Your task to perform on an android device: turn off location Image 0: 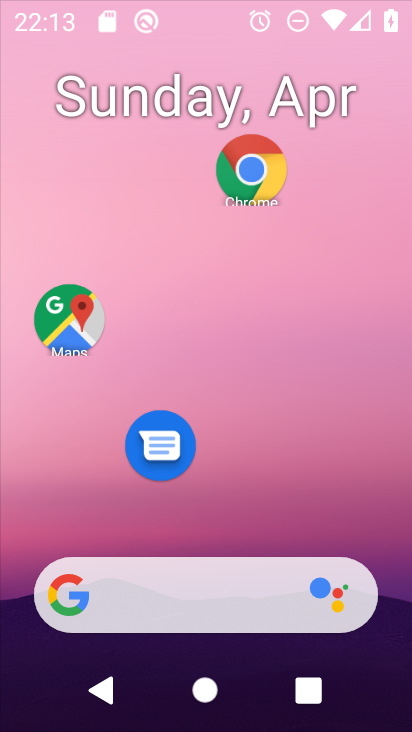
Step 0: drag from (242, 460) to (242, 120)
Your task to perform on an android device: turn off location Image 1: 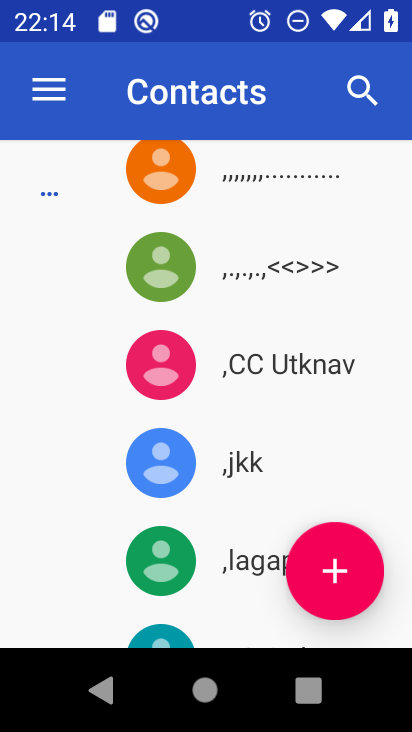
Step 1: press home button
Your task to perform on an android device: turn off location Image 2: 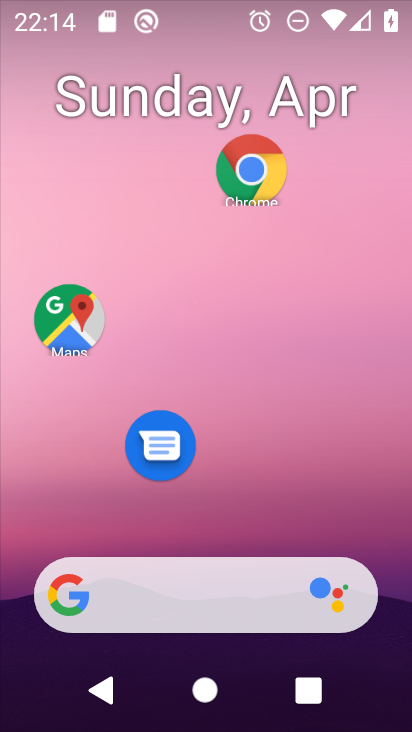
Step 2: drag from (256, 475) to (286, 79)
Your task to perform on an android device: turn off location Image 3: 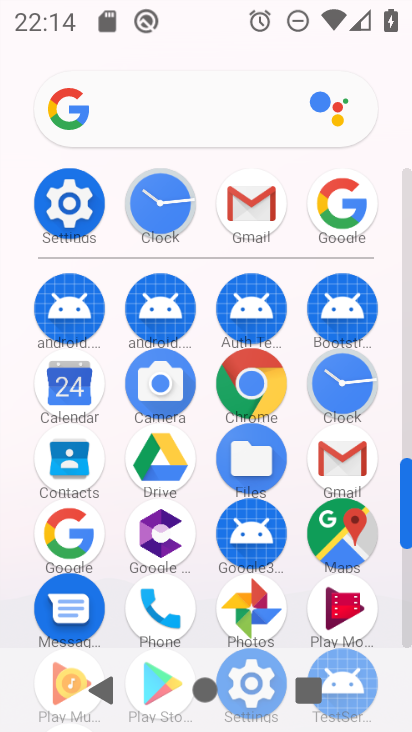
Step 3: click (67, 205)
Your task to perform on an android device: turn off location Image 4: 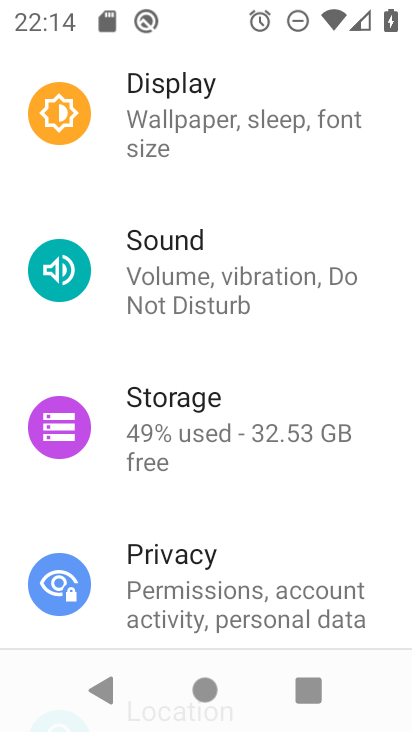
Step 4: drag from (229, 575) to (283, 218)
Your task to perform on an android device: turn off location Image 5: 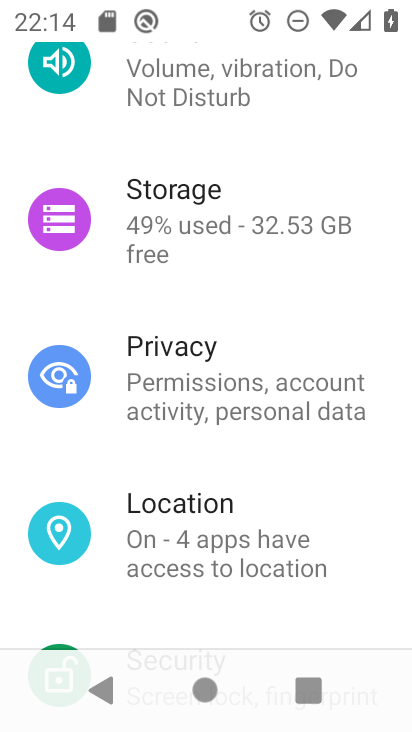
Step 5: click (220, 539)
Your task to perform on an android device: turn off location Image 6: 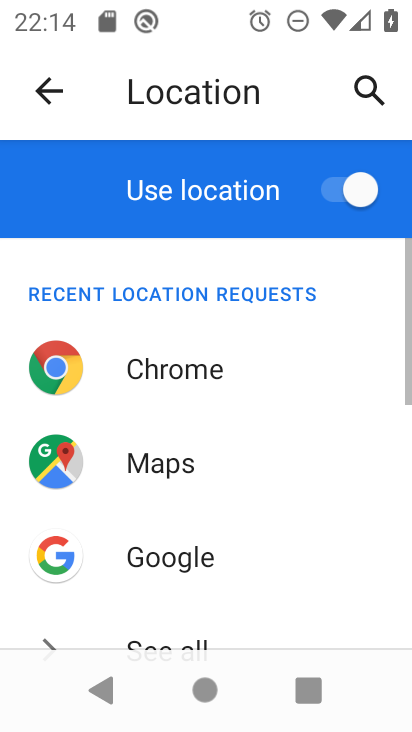
Step 6: click (361, 185)
Your task to perform on an android device: turn off location Image 7: 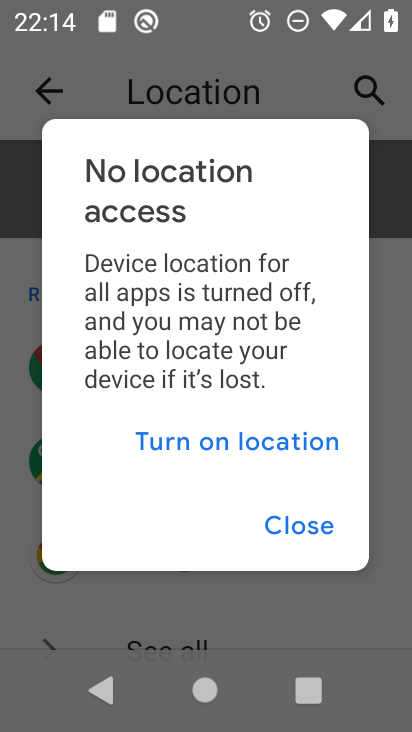
Step 7: click (292, 526)
Your task to perform on an android device: turn off location Image 8: 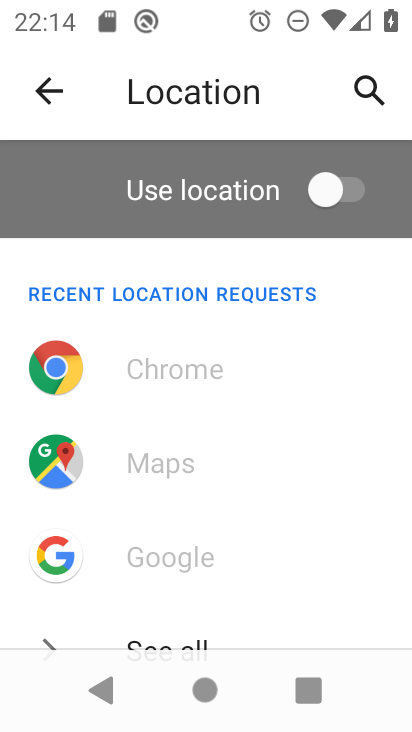
Step 8: task complete